Your task to perform on an android device: check storage Image 0: 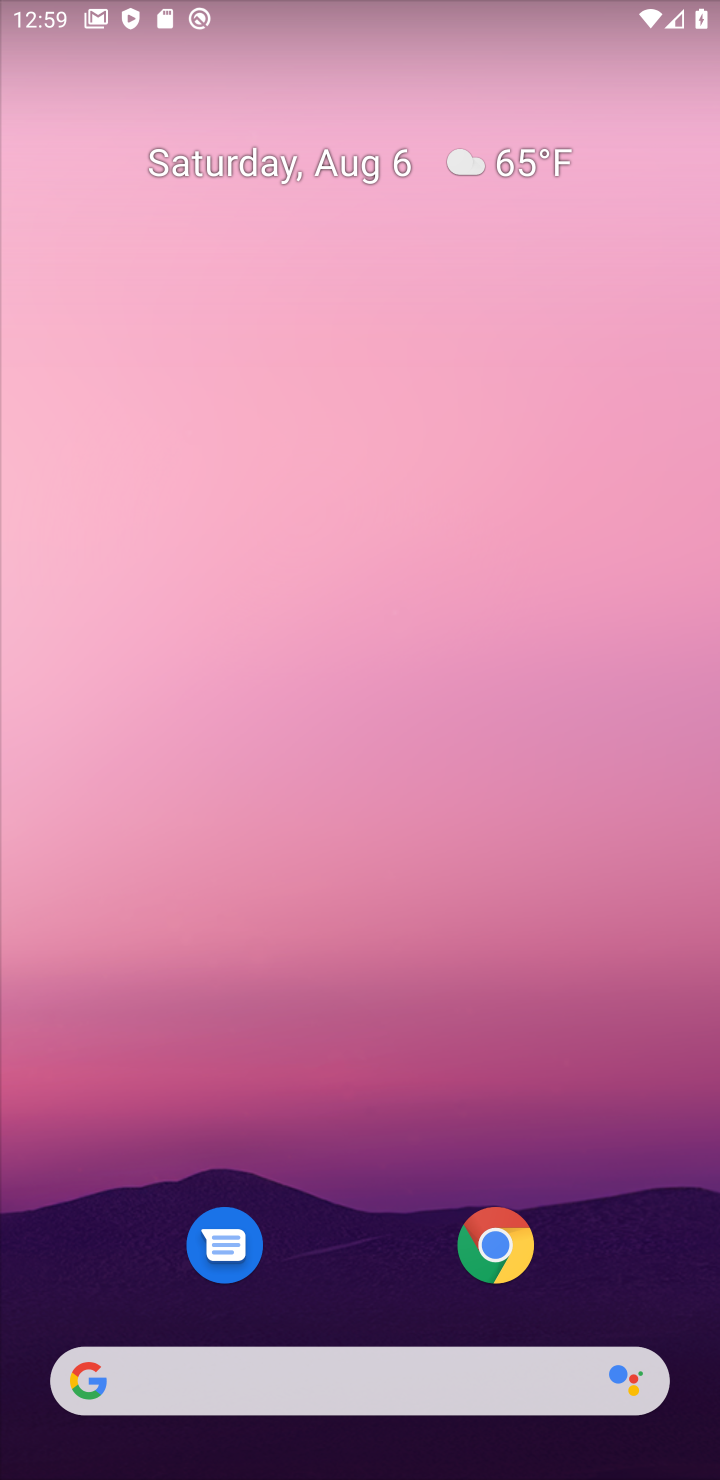
Step 0: press home button
Your task to perform on an android device: check storage Image 1: 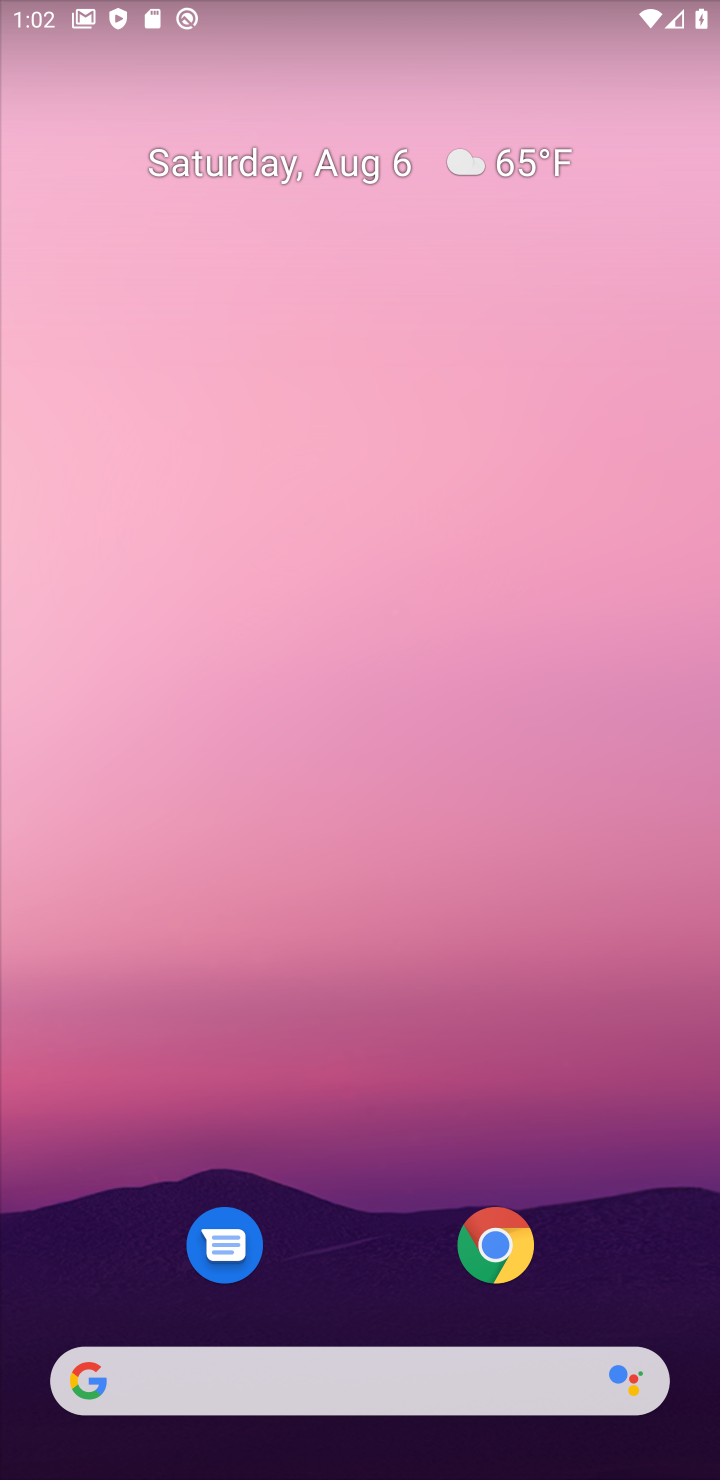
Step 1: drag from (366, 594) to (353, 304)
Your task to perform on an android device: check storage Image 2: 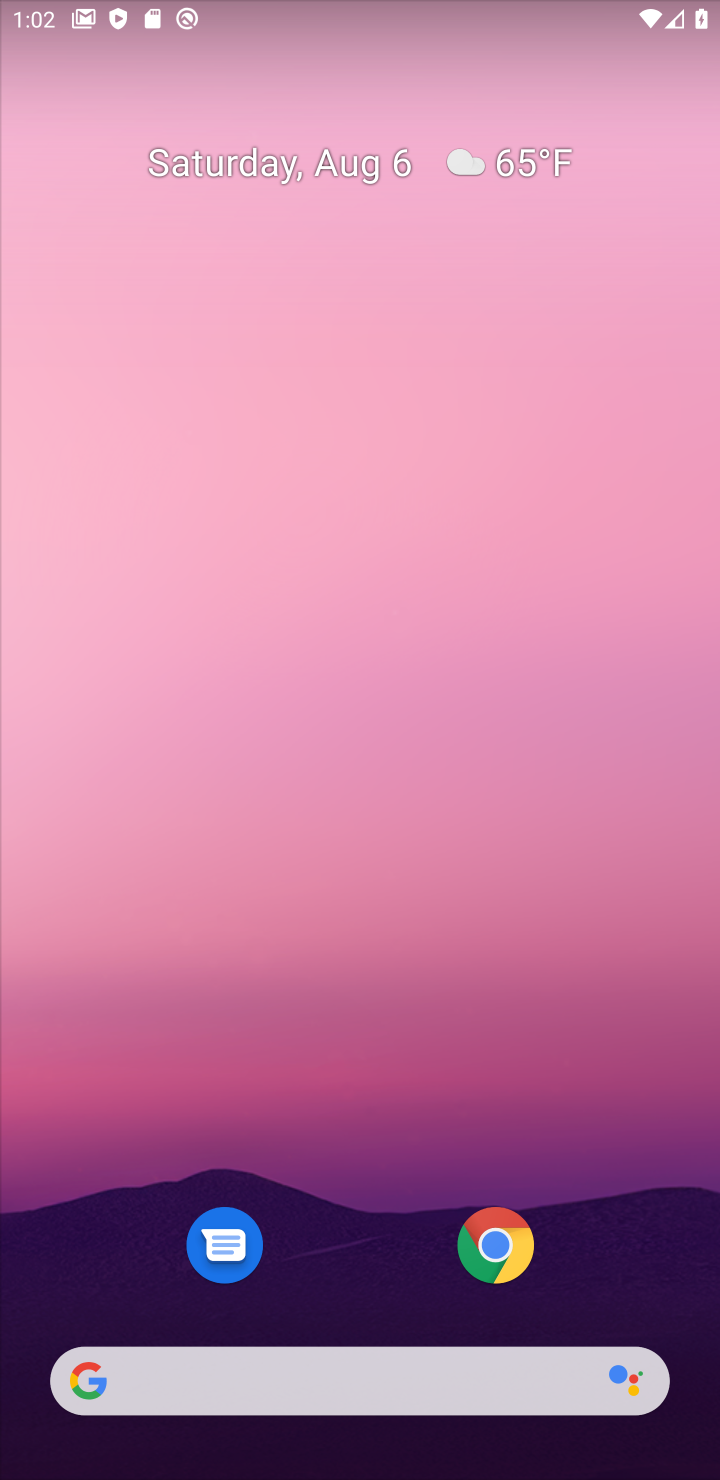
Step 2: drag from (364, 620) to (365, 433)
Your task to perform on an android device: check storage Image 3: 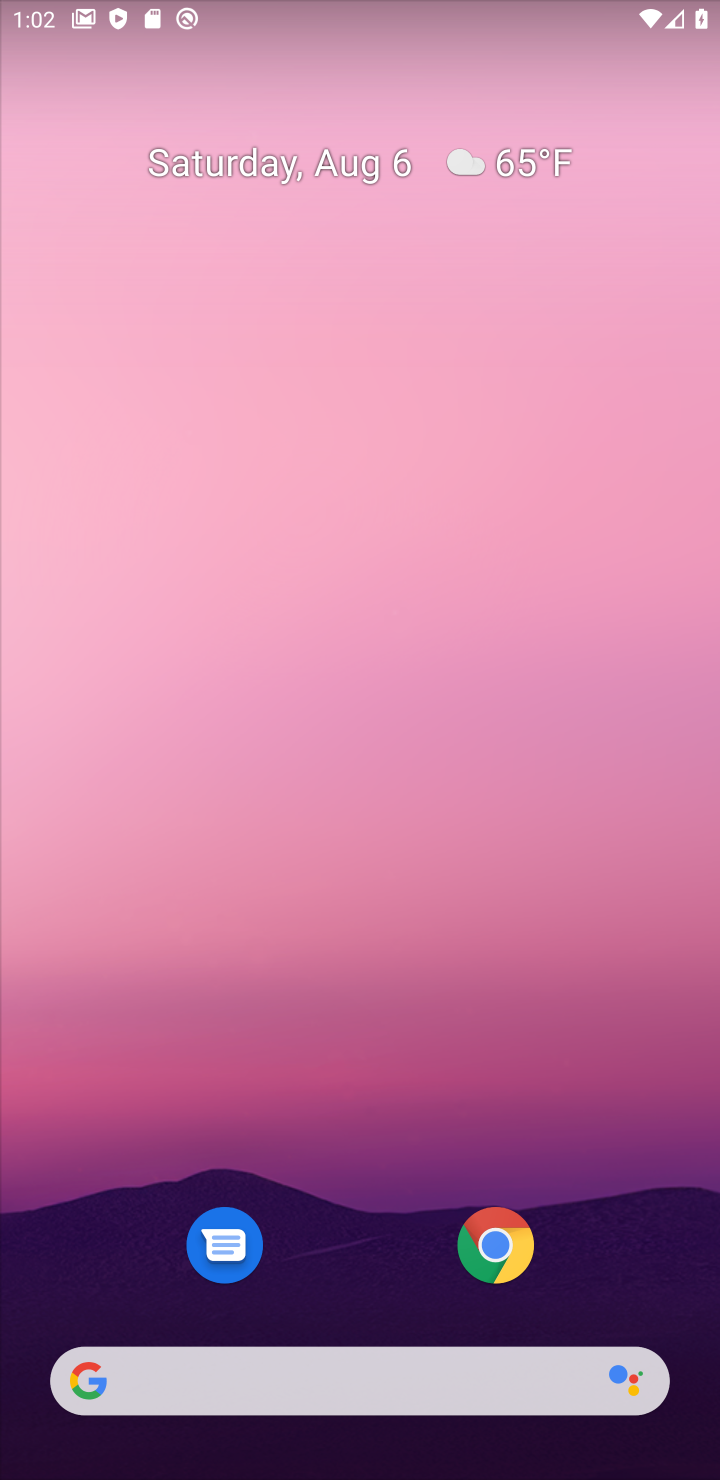
Step 3: drag from (348, 1022) to (251, 4)
Your task to perform on an android device: check storage Image 4: 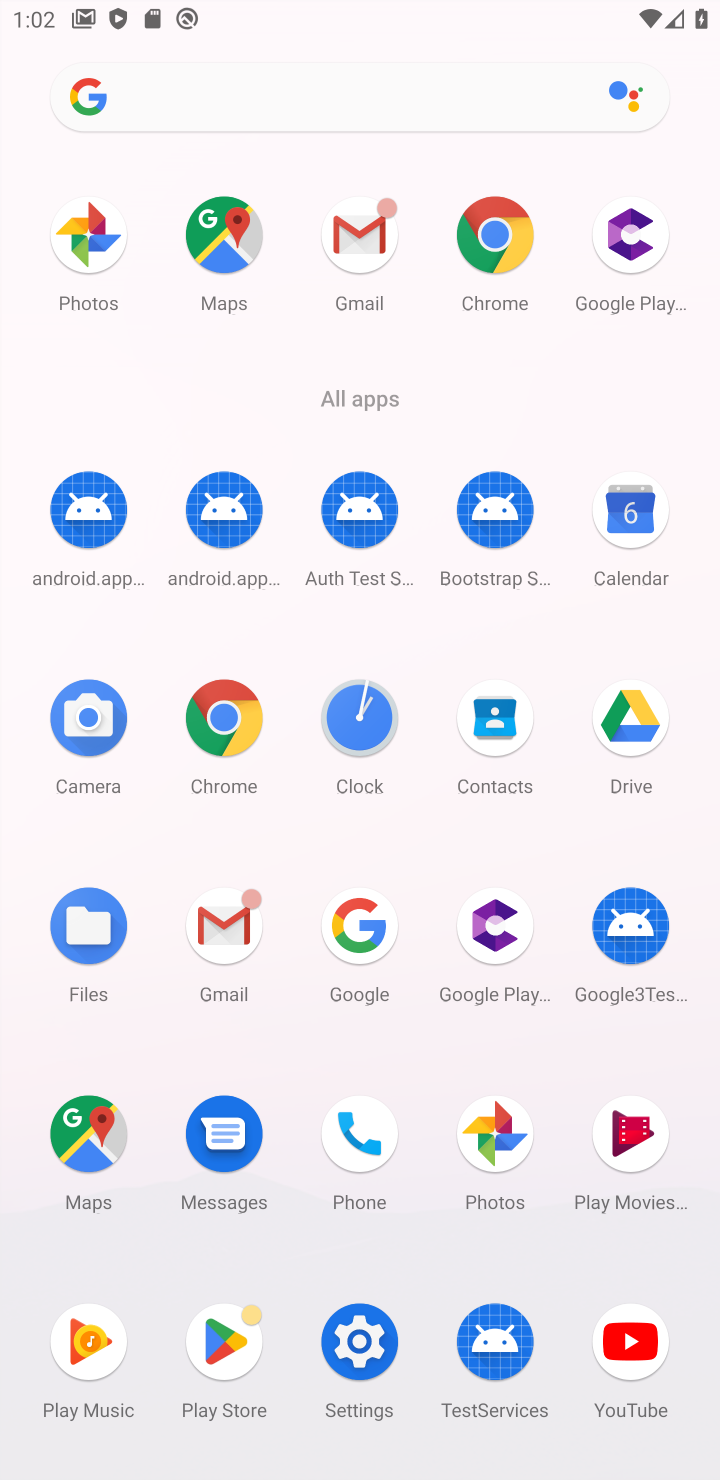
Step 4: click (367, 1363)
Your task to perform on an android device: check storage Image 5: 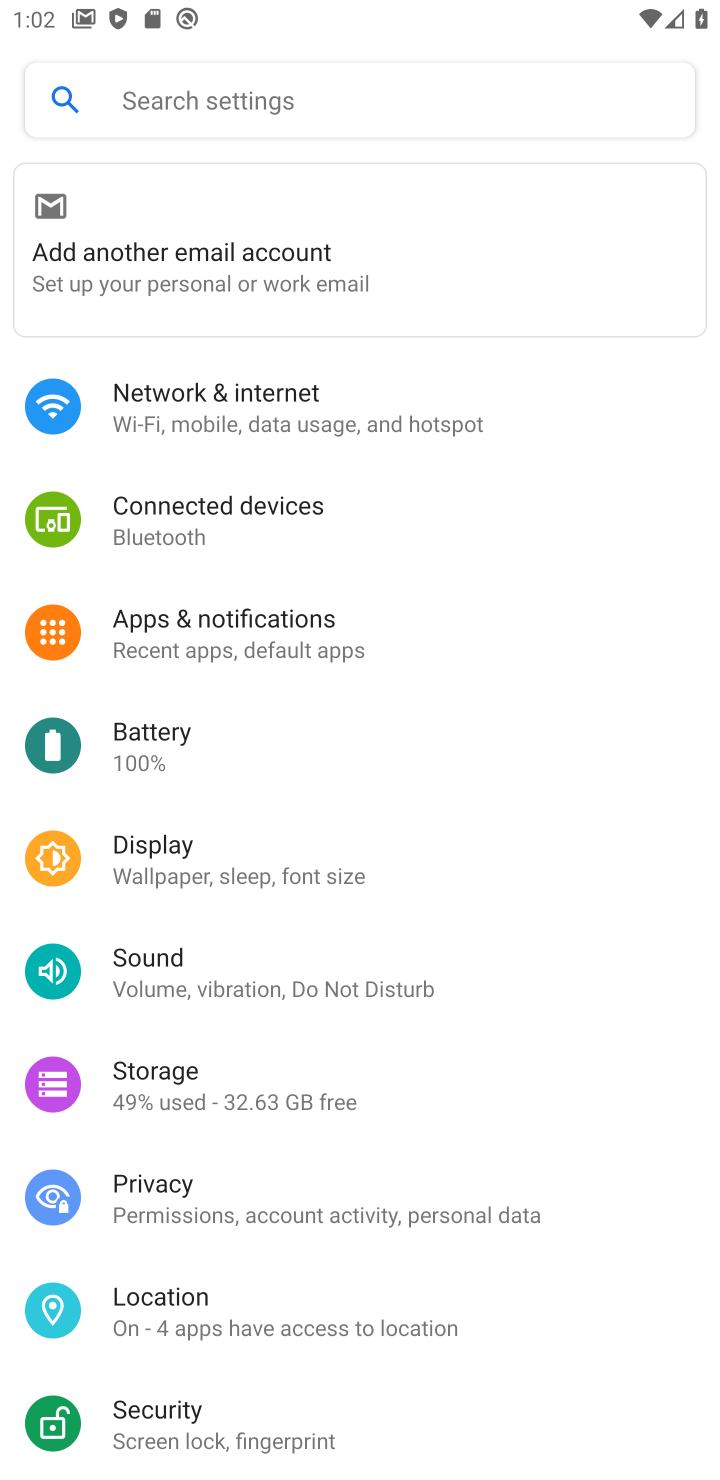
Step 5: click (268, 1103)
Your task to perform on an android device: check storage Image 6: 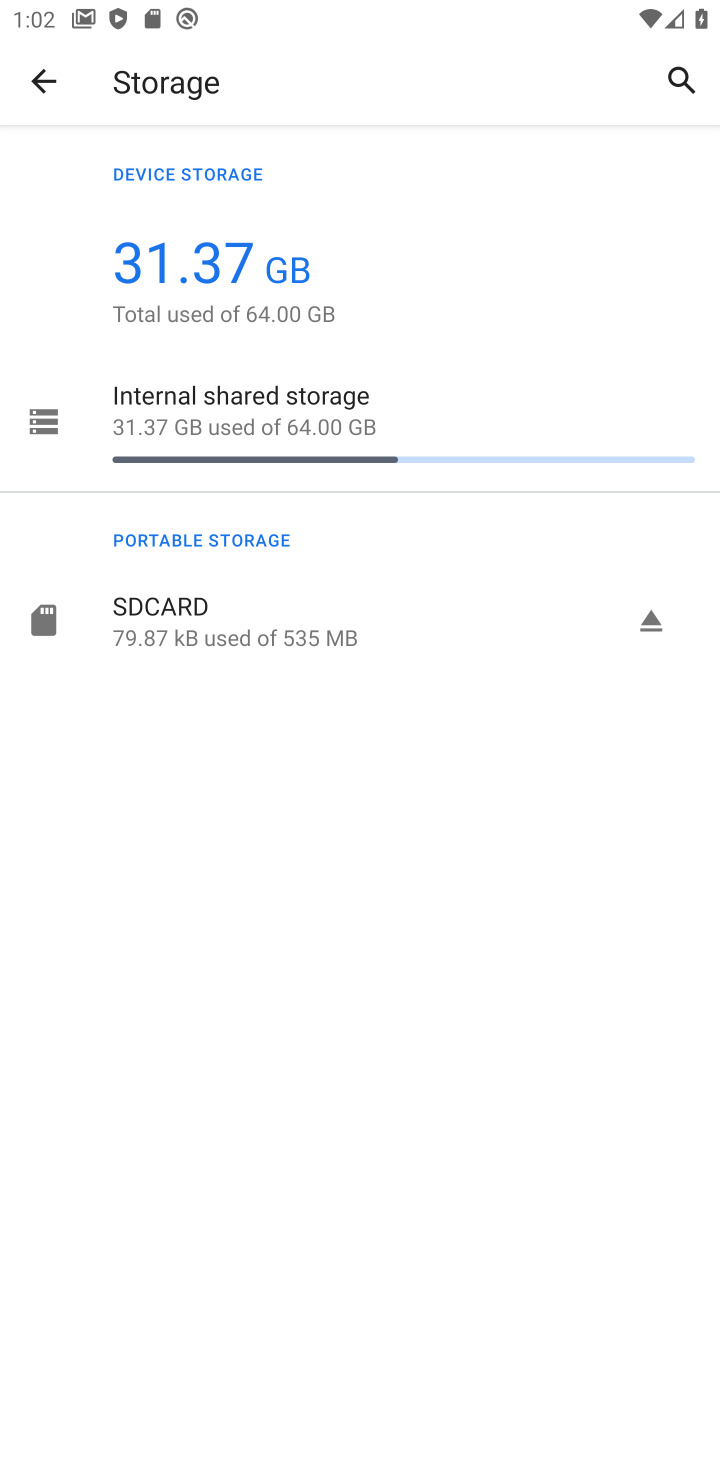
Step 6: task complete